Your task to perform on an android device: Go to privacy settings Image 0: 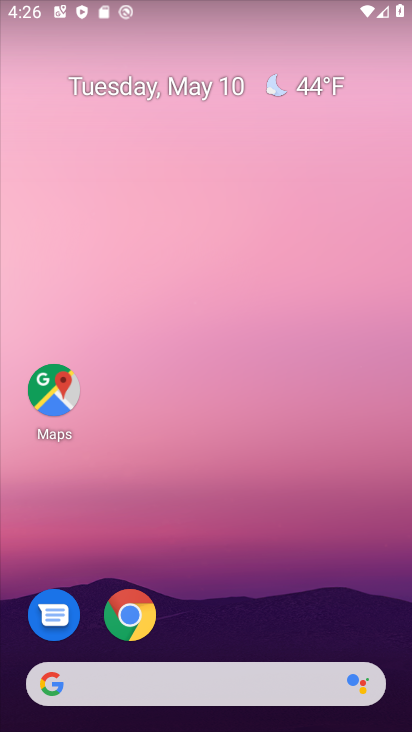
Step 0: drag from (220, 725) to (212, 57)
Your task to perform on an android device: Go to privacy settings Image 1: 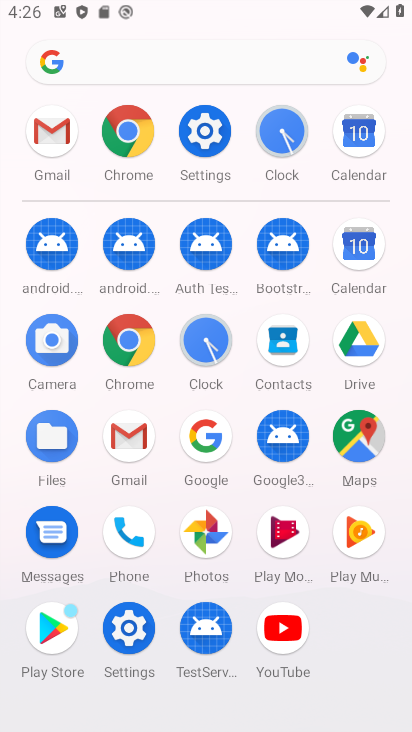
Step 1: click (215, 147)
Your task to perform on an android device: Go to privacy settings Image 2: 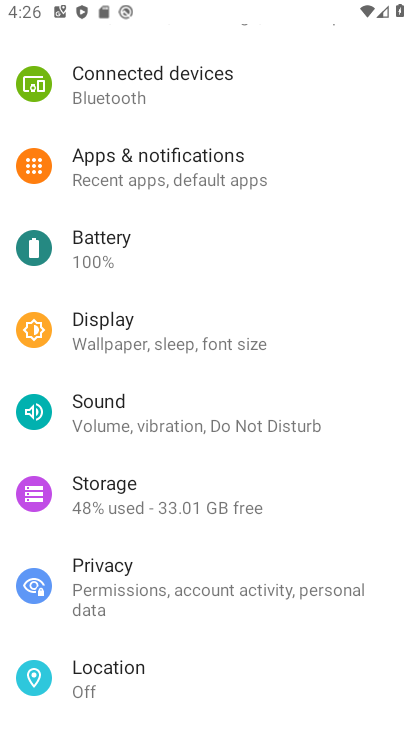
Step 2: click (121, 581)
Your task to perform on an android device: Go to privacy settings Image 3: 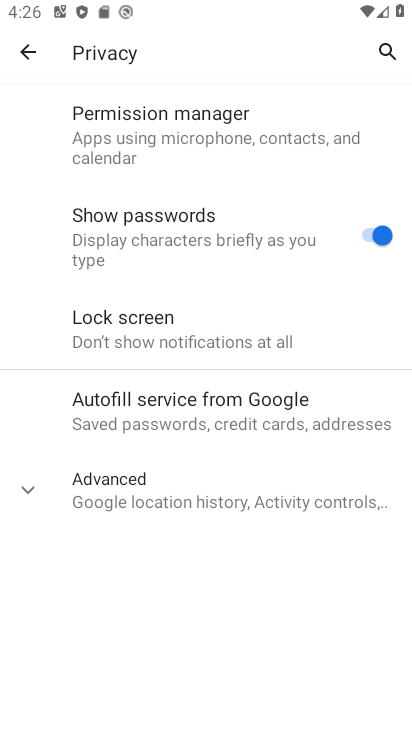
Step 3: task complete